Your task to perform on an android device: Search for vegetarian restaurants on Maps Image 0: 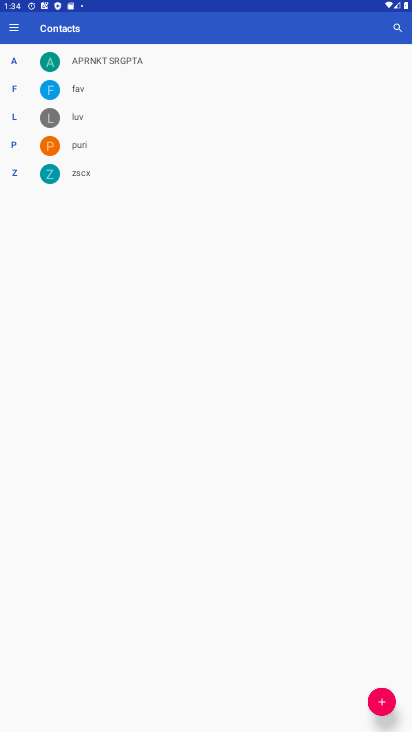
Step 0: press home button
Your task to perform on an android device: Search for vegetarian restaurants on Maps Image 1: 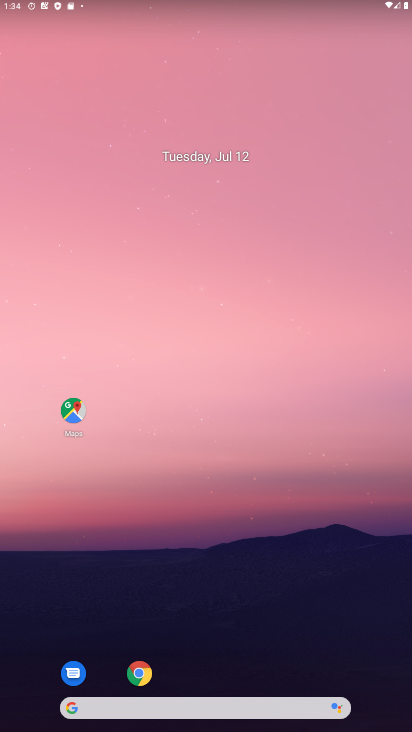
Step 1: drag from (285, 638) to (182, 4)
Your task to perform on an android device: Search for vegetarian restaurants on Maps Image 2: 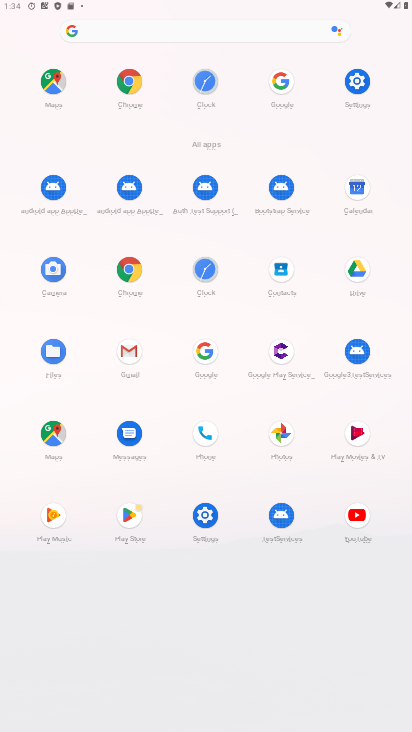
Step 2: click (52, 454)
Your task to perform on an android device: Search for vegetarian restaurants on Maps Image 3: 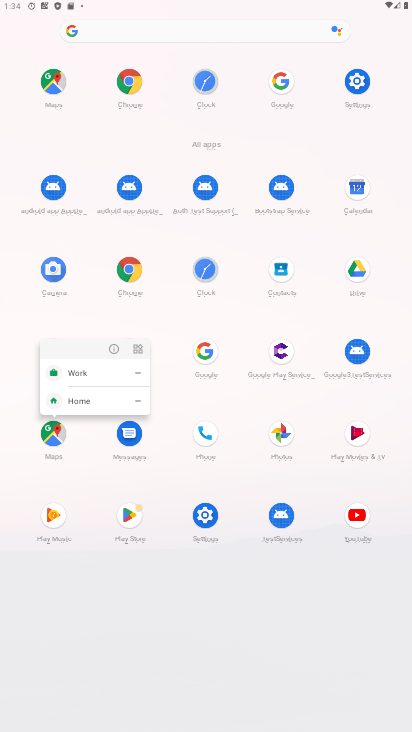
Step 3: click (52, 452)
Your task to perform on an android device: Search for vegetarian restaurants on Maps Image 4: 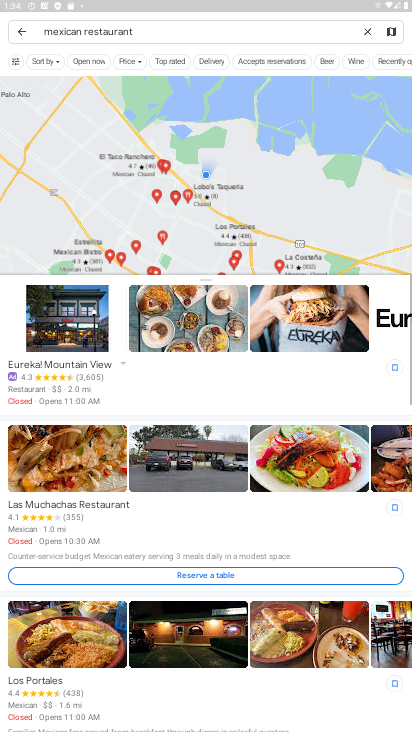
Step 4: click (17, 33)
Your task to perform on an android device: Search for vegetarian restaurants on Maps Image 5: 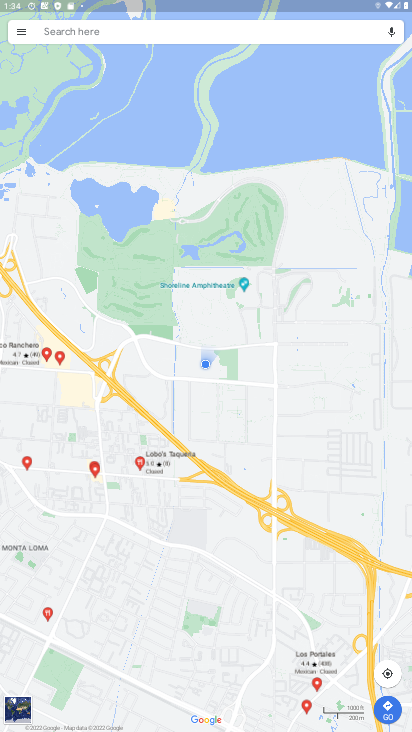
Step 5: click (62, 31)
Your task to perform on an android device: Search for vegetarian restaurants on Maps Image 6: 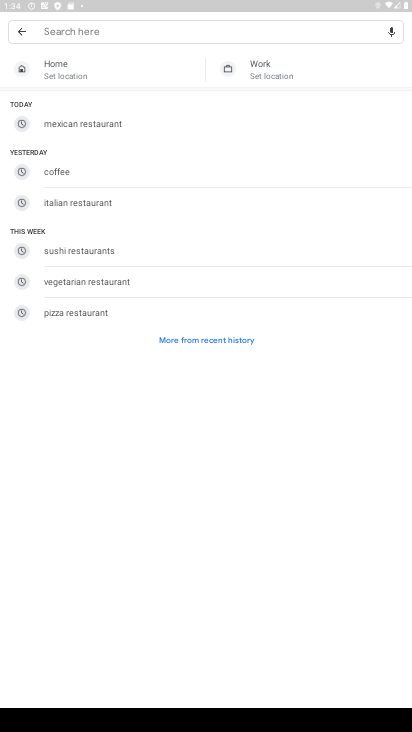
Step 6: click (128, 280)
Your task to perform on an android device: Search for vegetarian restaurants on Maps Image 7: 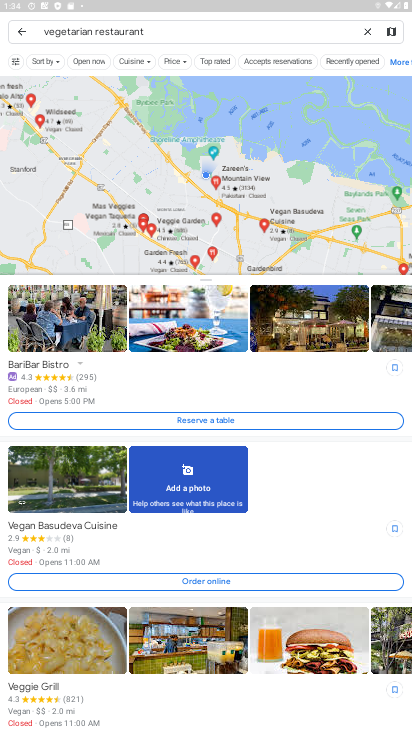
Step 7: task complete